Your task to perform on an android device: What's on my calendar tomorrow? Image 0: 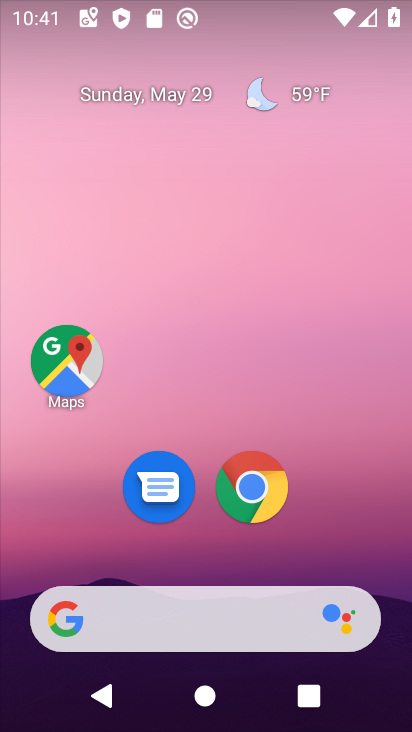
Step 0: drag from (362, 283) to (355, 171)
Your task to perform on an android device: What's on my calendar tomorrow? Image 1: 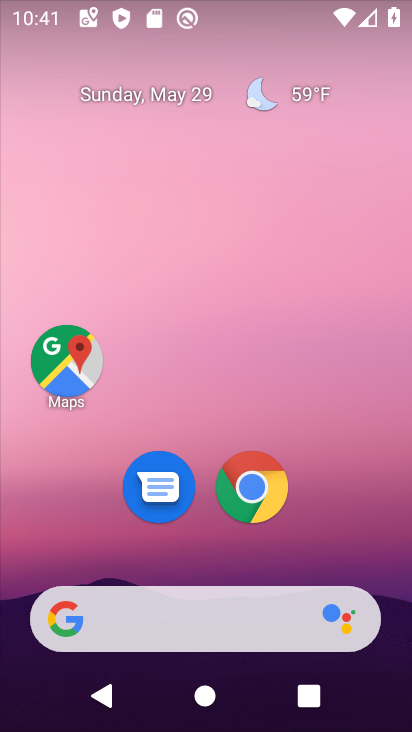
Step 1: drag from (397, 703) to (345, 193)
Your task to perform on an android device: What's on my calendar tomorrow? Image 2: 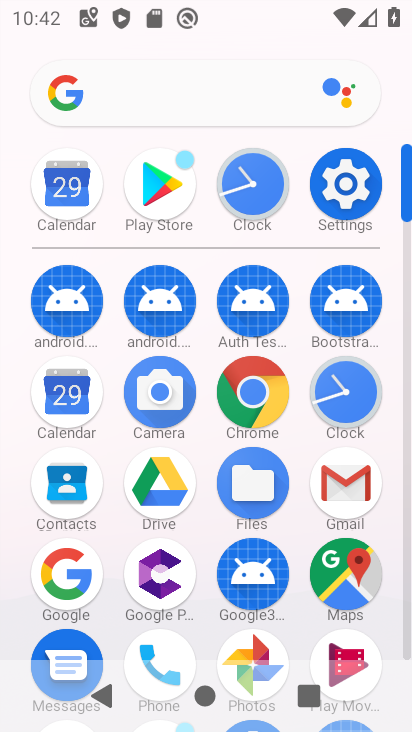
Step 2: click (73, 399)
Your task to perform on an android device: What's on my calendar tomorrow? Image 3: 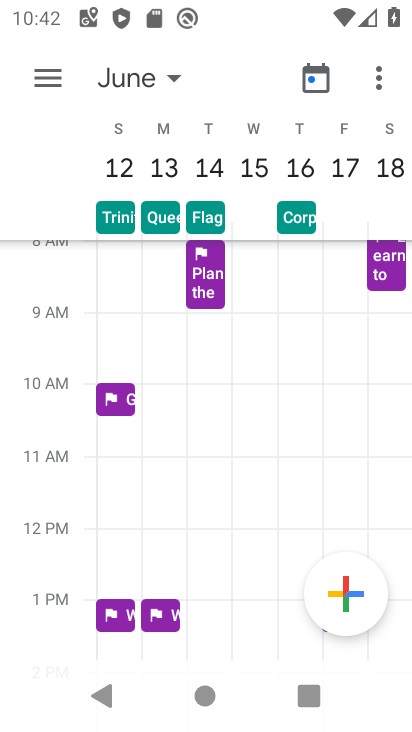
Step 3: click (173, 76)
Your task to perform on an android device: What's on my calendar tomorrow? Image 4: 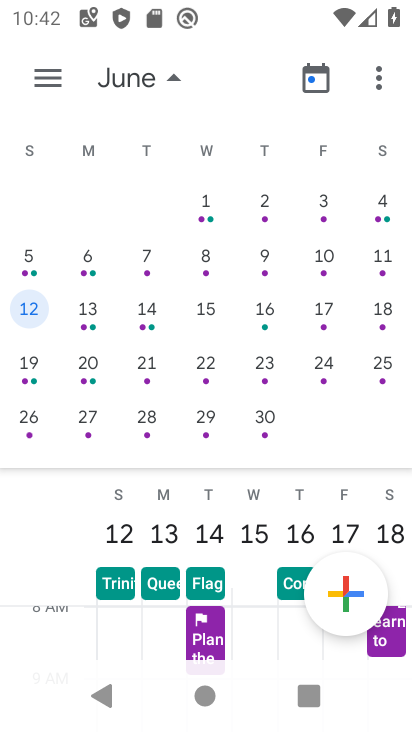
Step 4: drag from (74, 200) to (385, 185)
Your task to perform on an android device: What's on my calendar tomorrow? Image 5: 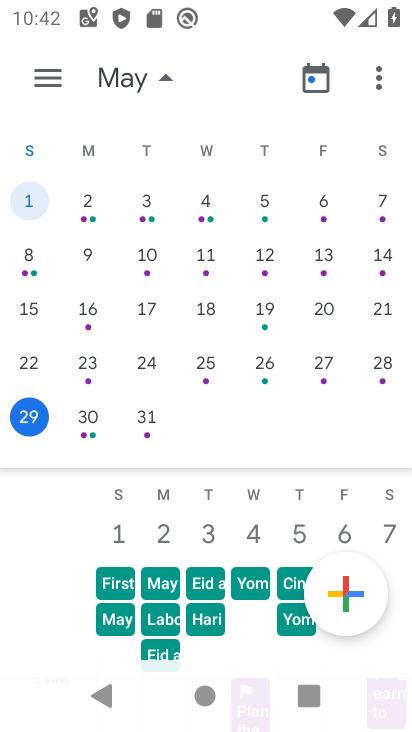
Step 5: click (24, 413)
Your task to perform on an android device: What's on my calendar tomorrow? Image 6: 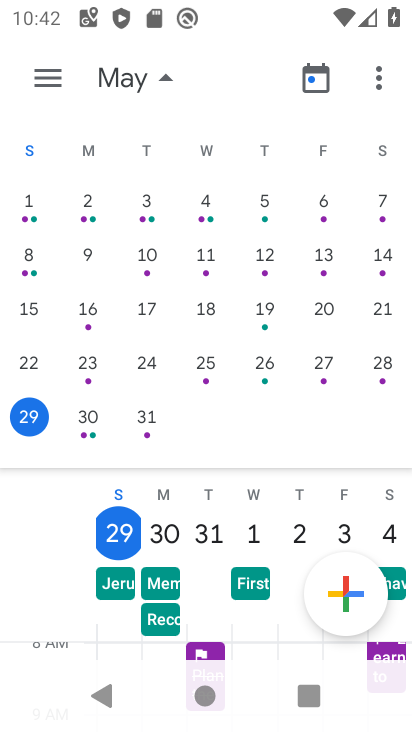
Step 6: click (47, 72)
Your task to perform on an android device: What's on my calendar tomorrow? Image 7: 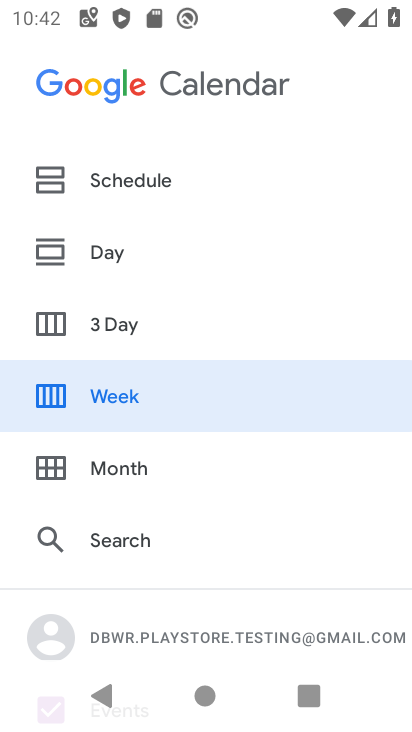
Step 7: click (105, 251)
Your task to perform on an android device: What's on my calendar tomorrow? Image 8: 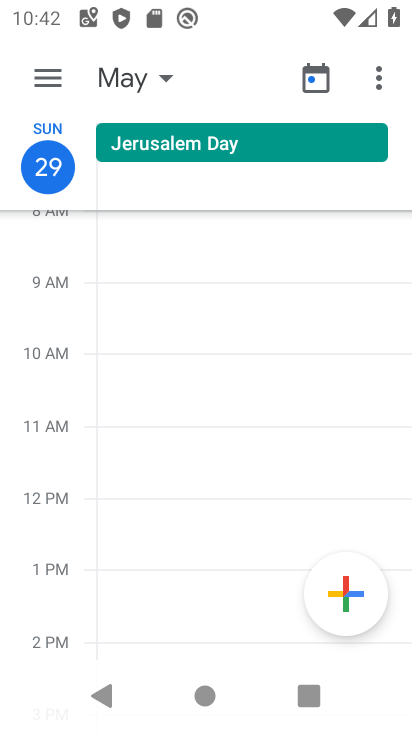
Step 8: click (111, 181)
Your task to perform on an android device: What's on my calendar tomorrow? Image 9: 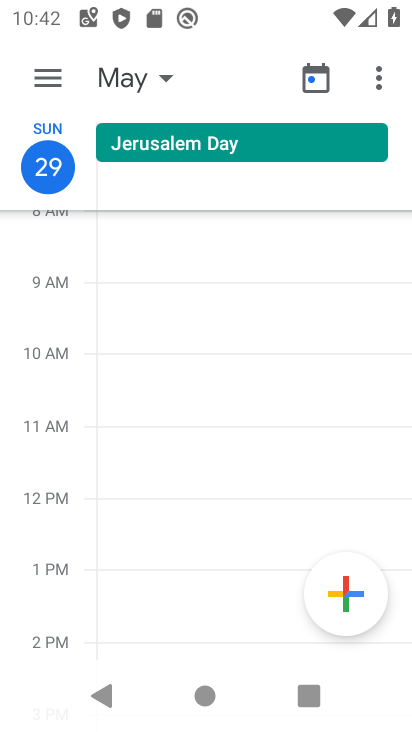
Step 9: click (47, 78)
Your task to perform on an android device: What's on my calendar tomorrow? Image 10: 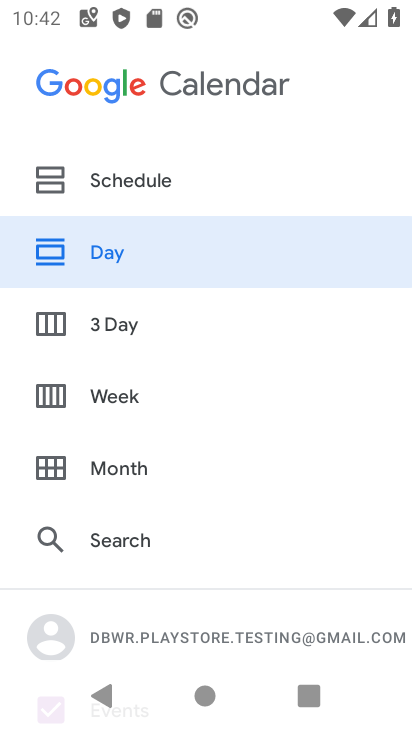
Step 10: click (104, 177)
Your task to perform on an android device: What's on my calendar tomorrow? Image 11: 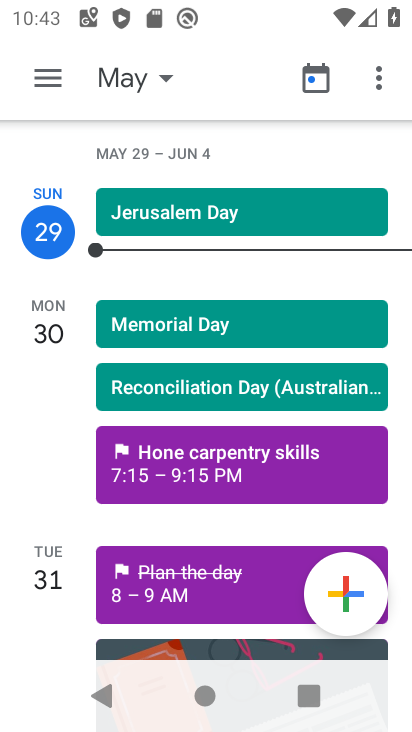
Step 11: task complete